Your task to perform on an android device: install app "Duolingo: language lessons" Image 0: 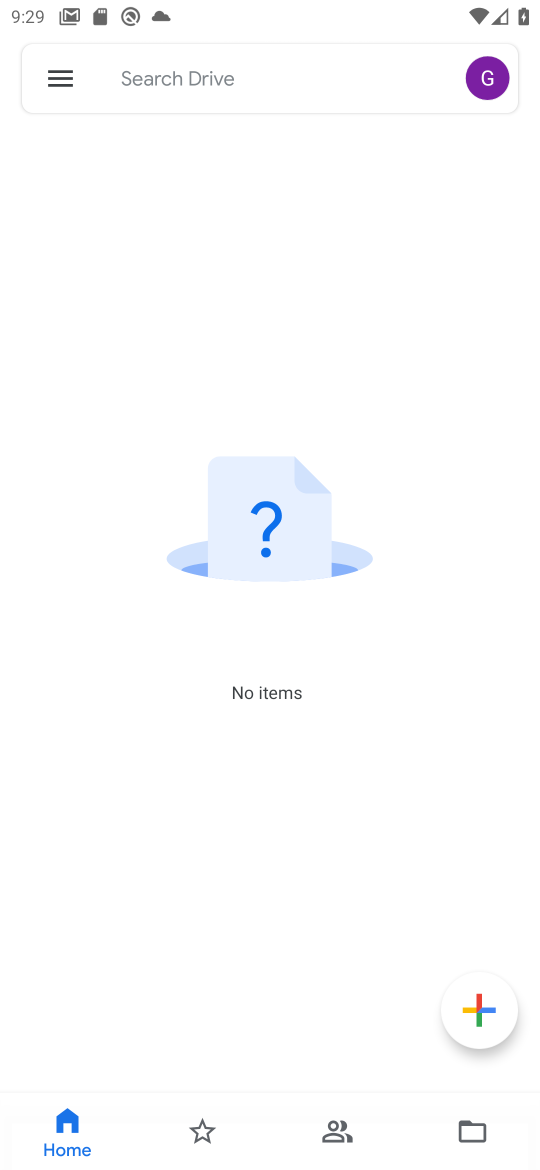
Step 0: press home button
Your task to perform on an android device: install app "Duolingo: language lessons" Image 1: 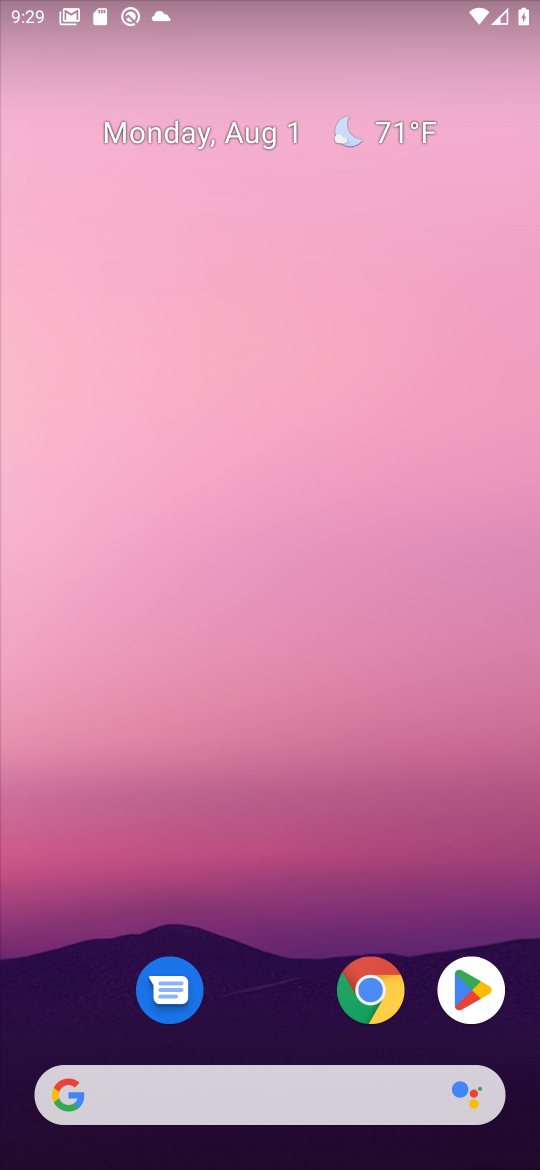
Step 1: click (480, 996)
Your task to perform on an android device: install app "Duolingo: language lessons" Image 2: 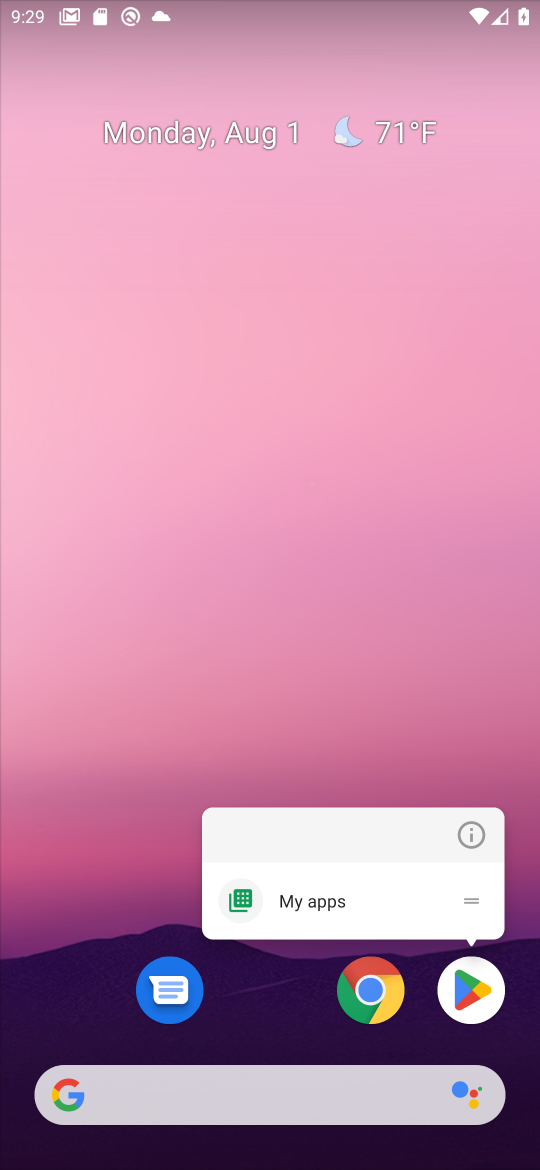
Step 2: click (471, 967)
Your task to perform on an android device: install app "Duolingo: language lessons" Image 3: 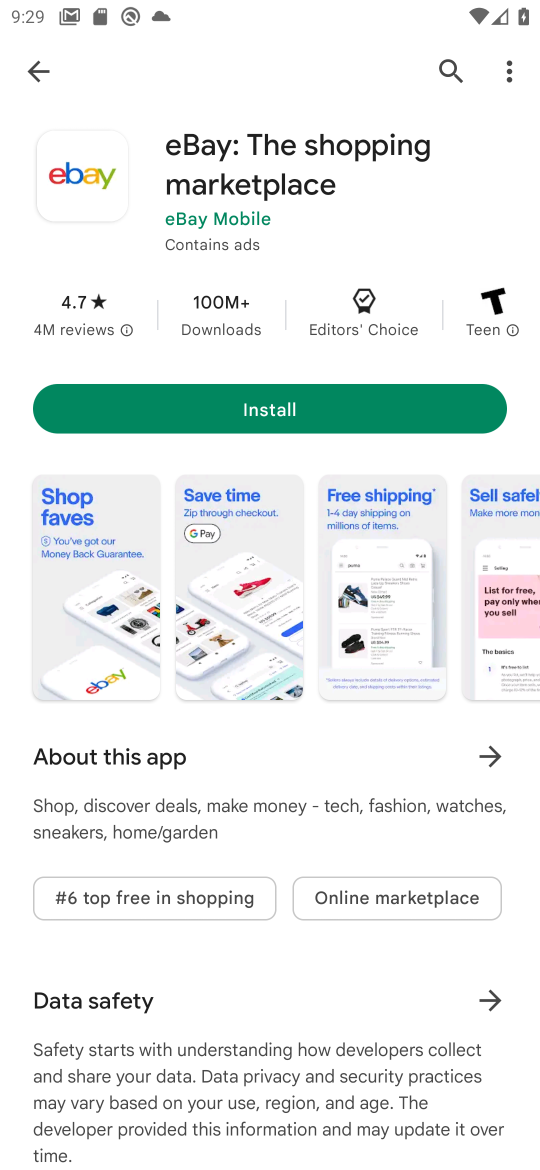
Step 3: click (433, 85)
Your task to perform on an android device: install app "Duolingo: language lessons" Image 4: 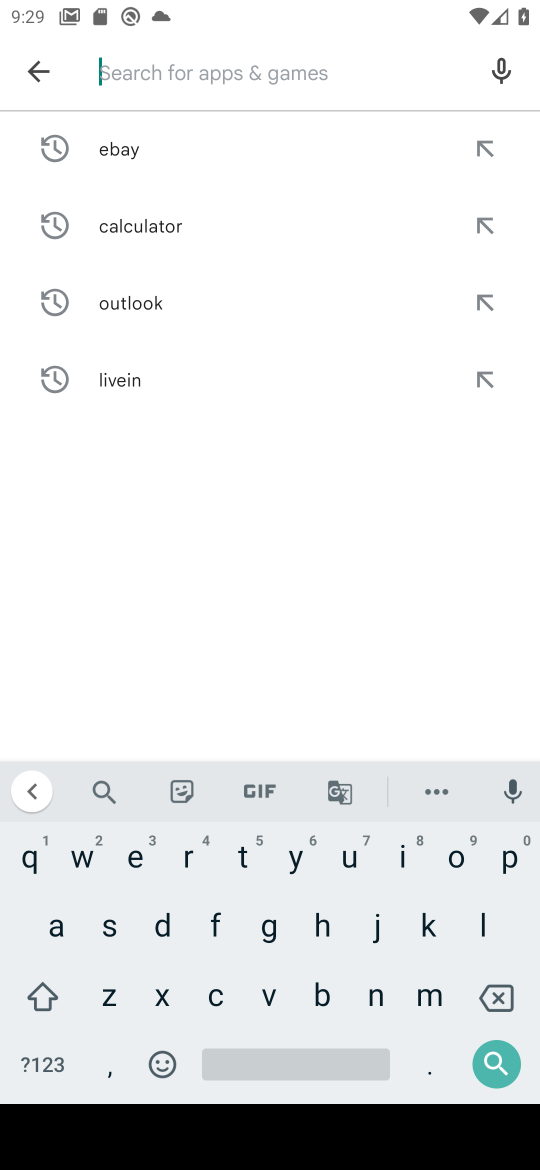
Step 4: click (157, 914)
Your task to perform on an android device: install app "Duolingo: language lessons" Image 5: 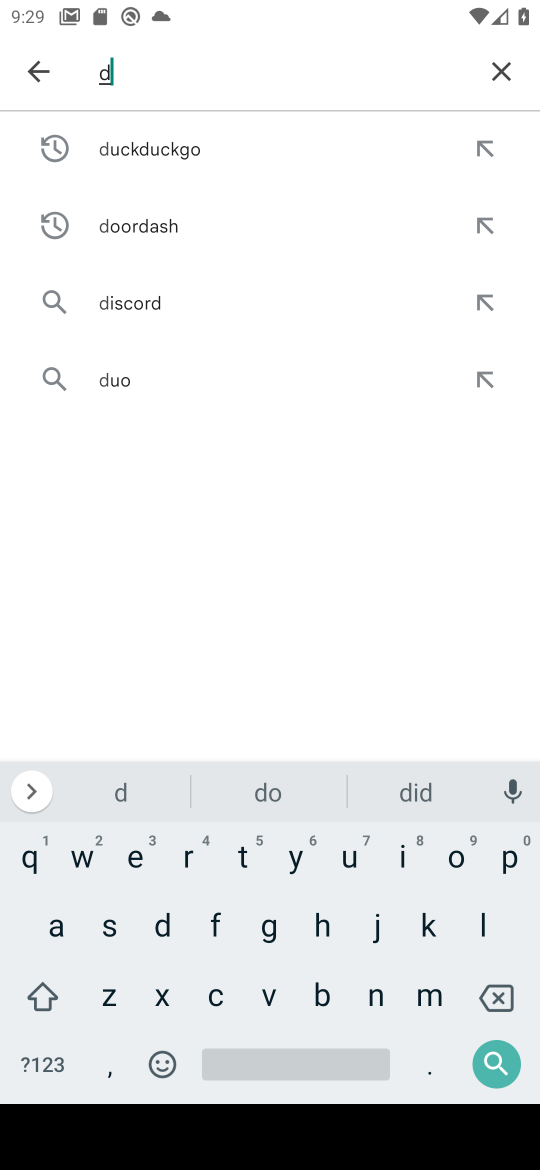
Step 5: click (342, 856)
Your task to perform on an android device: install app "Duolingo: language lessons" Image 6: 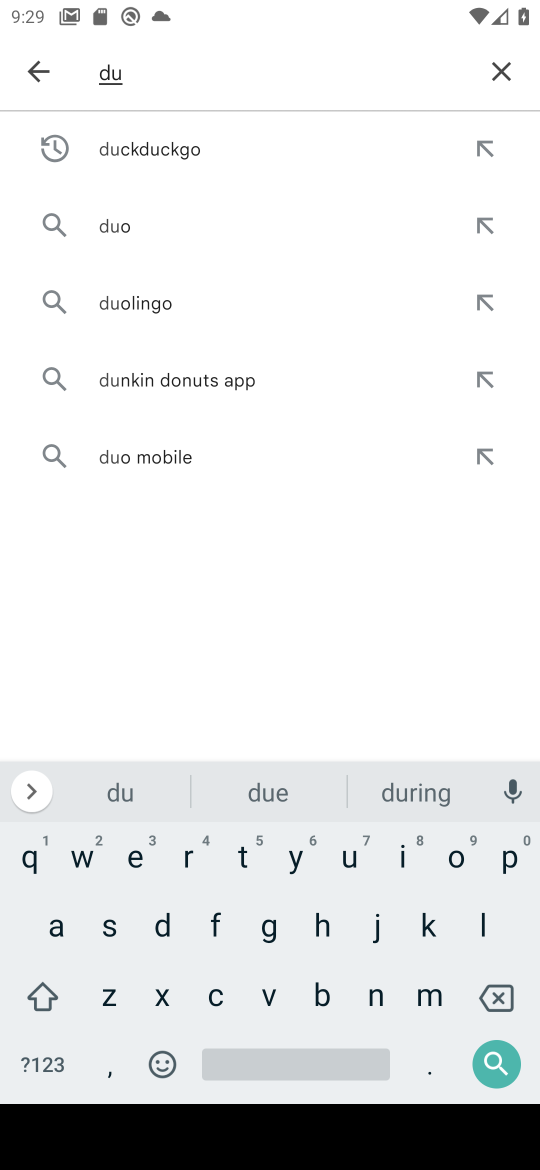
Step 6: click (199, 287)
Your task to perform on an android device: install app "Duolingo: language lessons" Image 7: 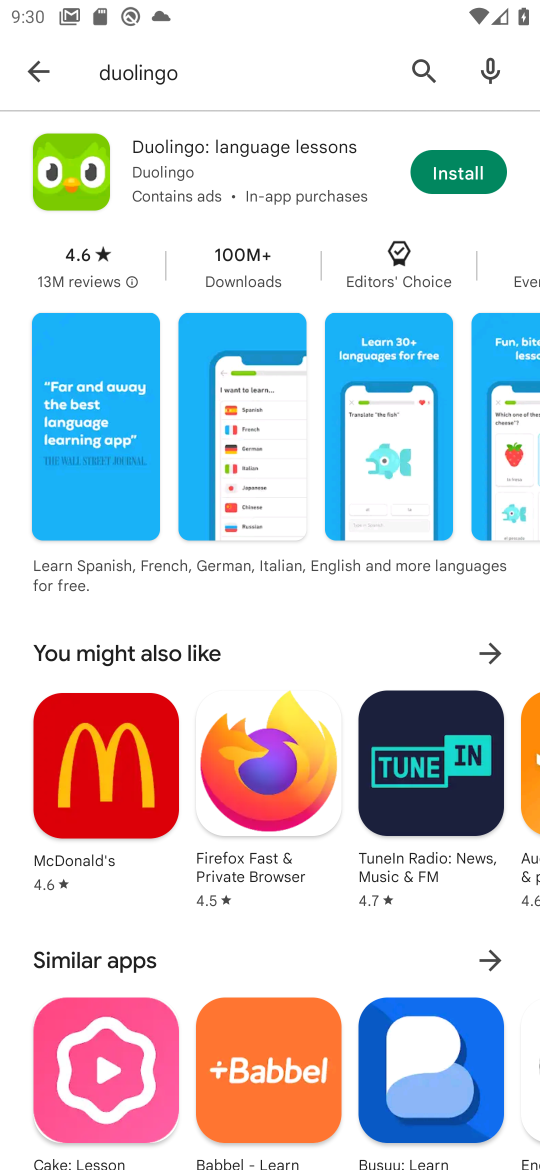
Step 7: click (436, 170)
Your task to perform on an android device: install app "Duolingo: language lessons" Image 8: 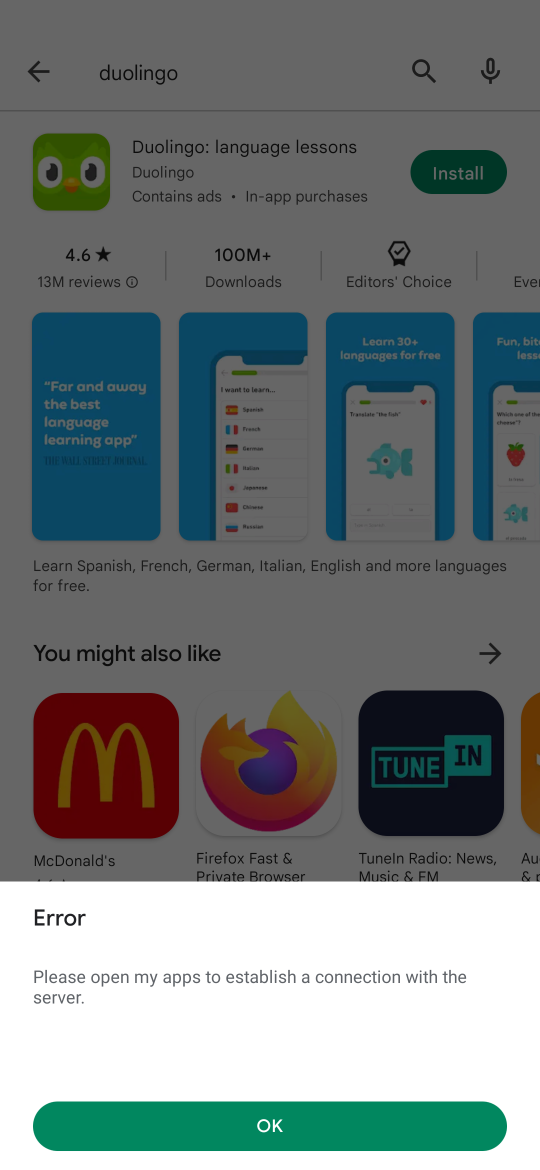
Step 8: task complete